Your task to perform on an android device: Open CNN.com Image 0: 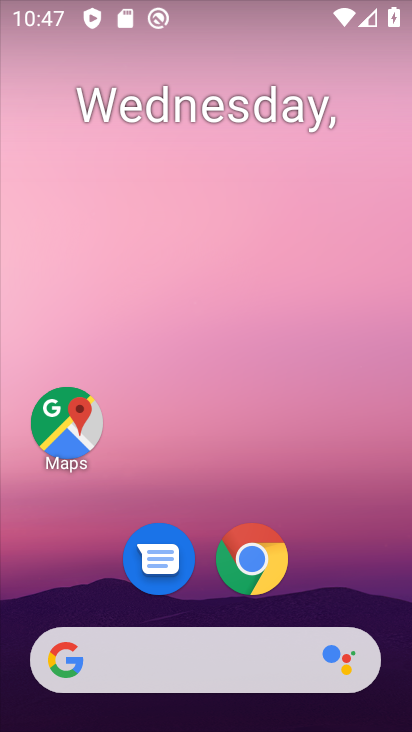
Step 0: drag from (350, 582) to (278, 16)
Your task to perform on an android device: Open CNN.com Image 1: 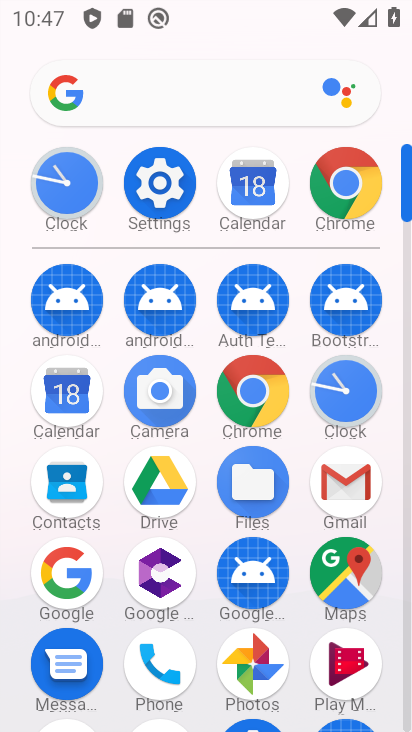
Step 1: click (343, 188)
Your task to perform on an android device: Open CNN.com Image 2: 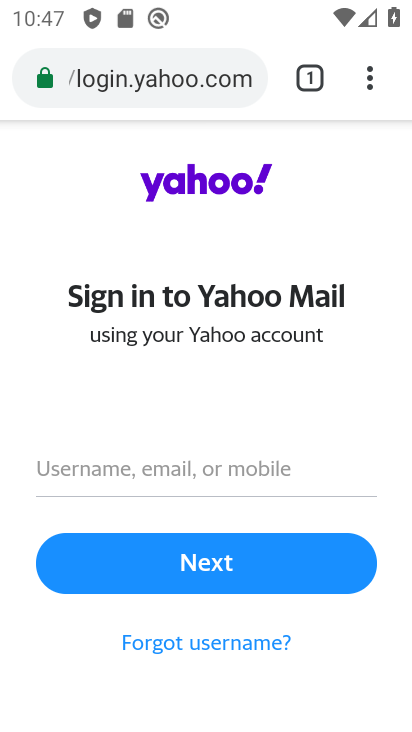
Step 2: click (158, 81)
Your task to perform on an android device: Open CNN.com Image 3: 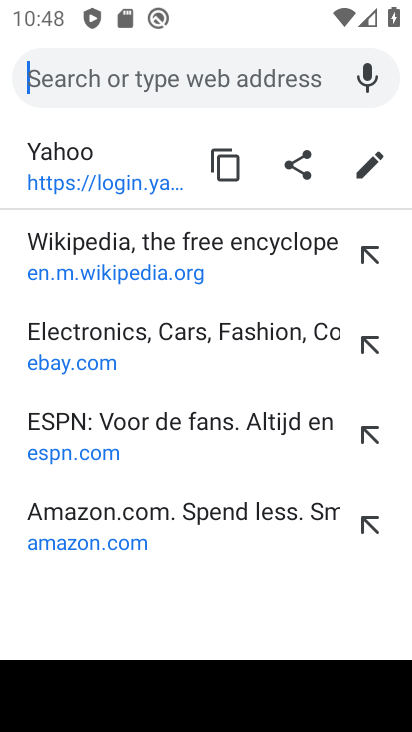
Step 3: type "cnn"
Your task to perform on an android device: Open CNN.com Image 4: 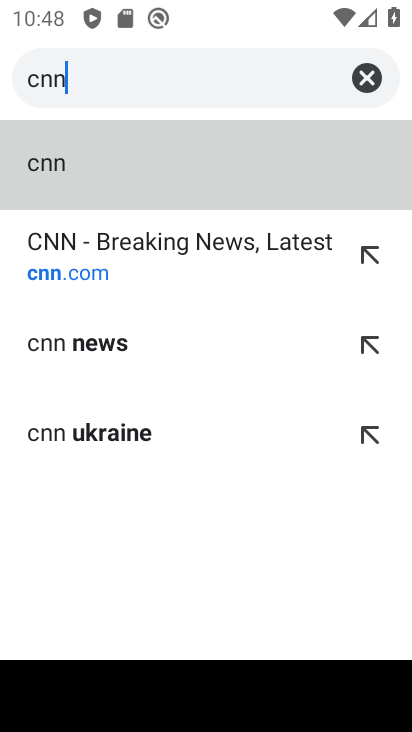
Step 4: click (116, 263)
Your task to perform on an android device: Open CNN.com Image 5: 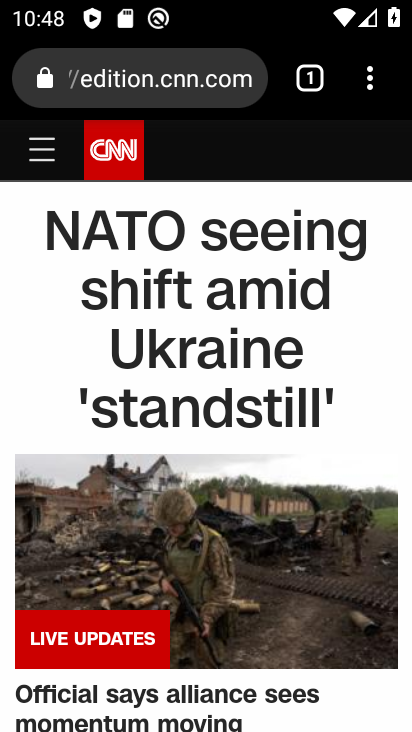
Step 5: task complete